Your task to perform on an android device: Show me recent news Image 0: 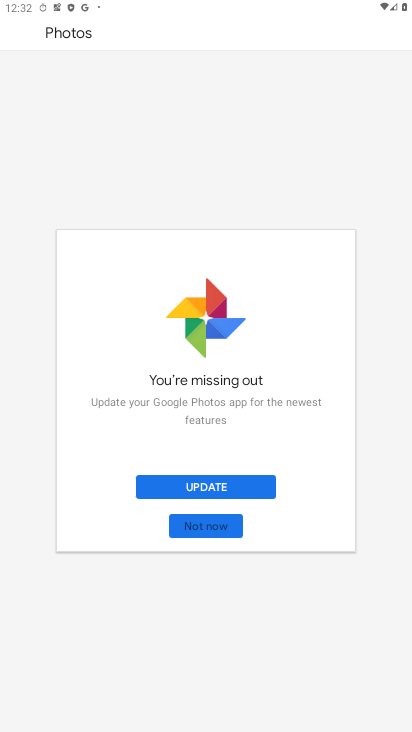
Step 0: press home button
Your task to perform on an android device: Show me recent news Image 1: 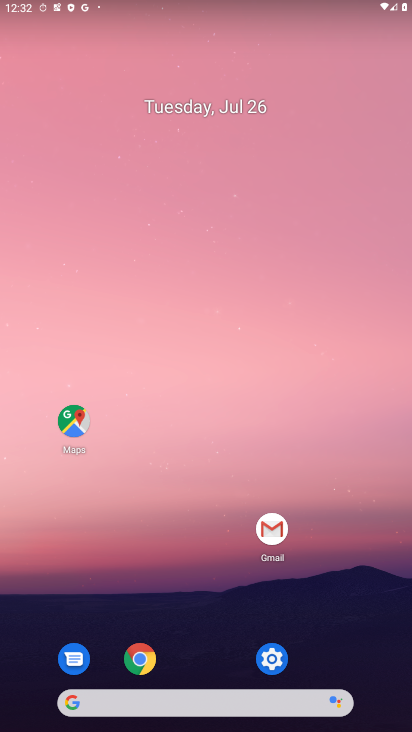
Step 1: click (119, 712)
Your task to perform on an android device: Show me recent news Image 2: 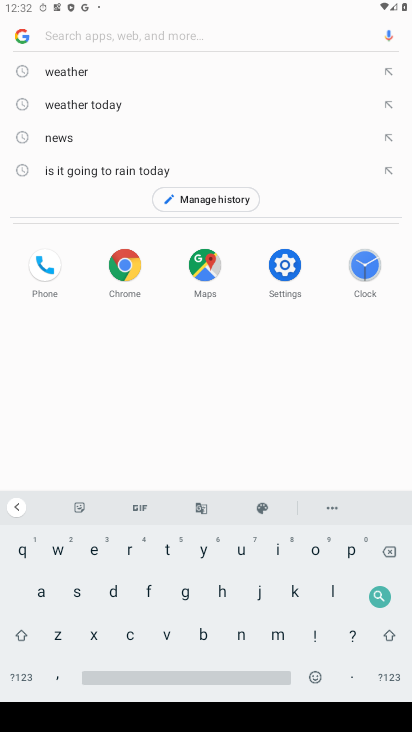
Step 2: click (127, 549)
Your task to perform on an android device: Show me recent news Image 3: 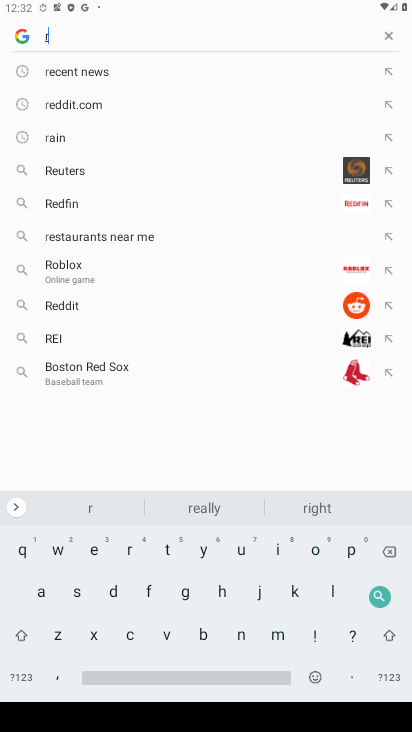
Step 3: click (93, 550)
Your task to perform on an android device: Show me recent news Image 4: 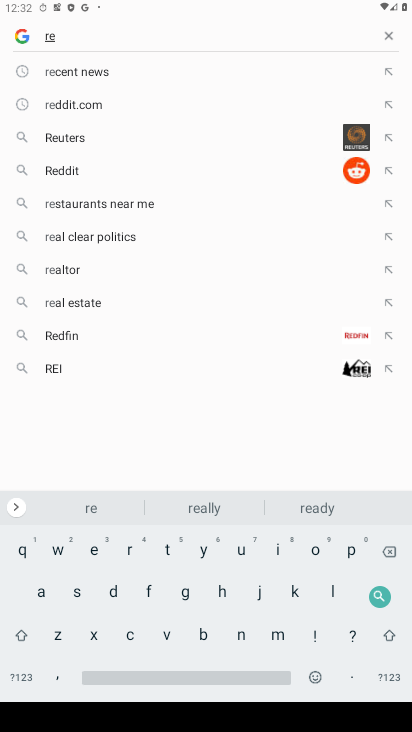
Step 4: click (102, 77)
Your task to perform on an android device: Show me recent news Image 5: 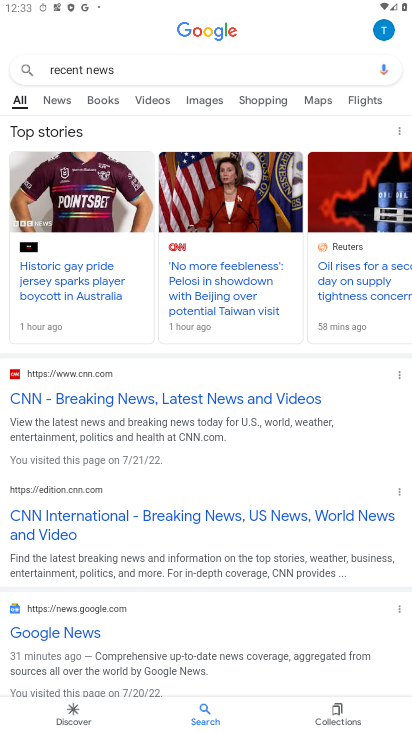
Step 5: task complete